Your task to perform on an android device: What's the news in Trinidad and Tobago? Image 0: 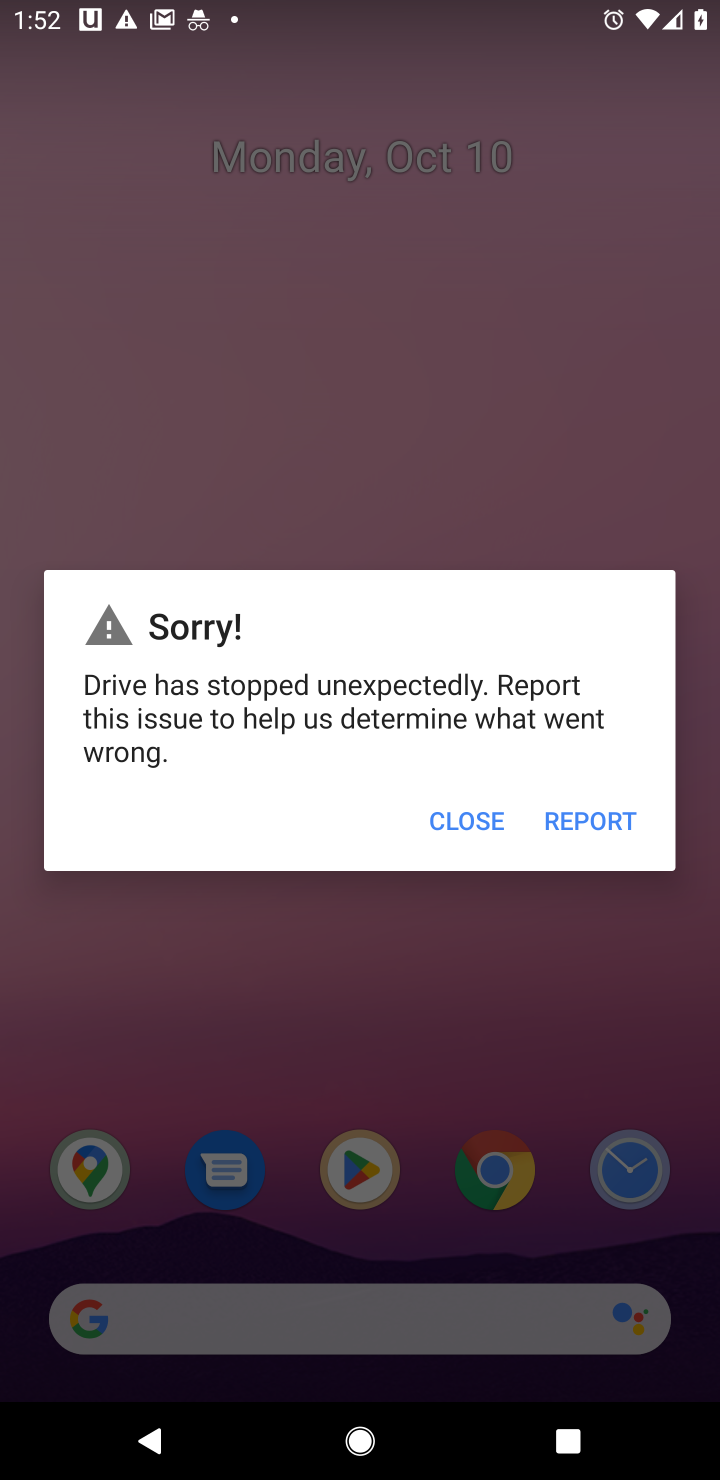
Step 0: press home button
Your task to perform on an android device: What's the news in Trinidad and Tobago? Image 1: 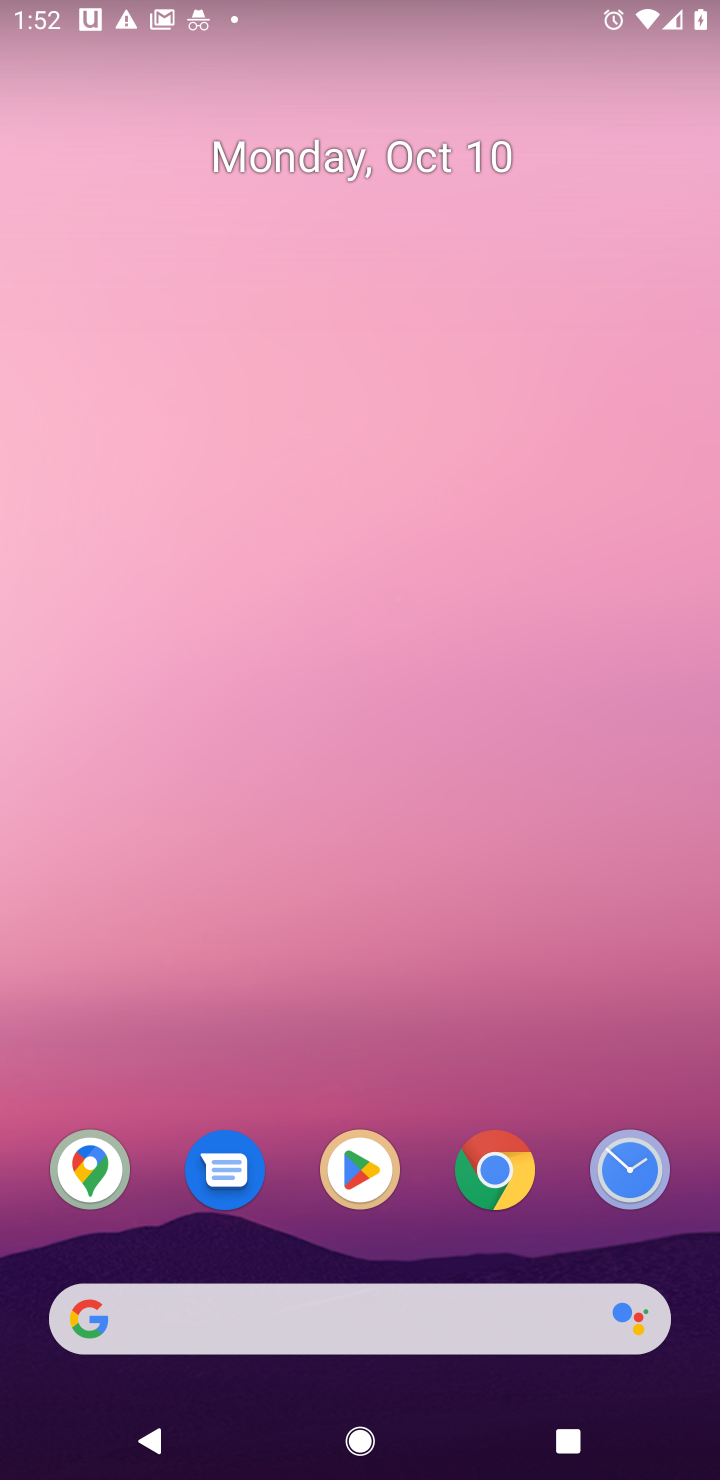
Step 1: click (486, 1150)
Your task to perform on an android device: What's the news in Trinidad and Tobago? Image 2: 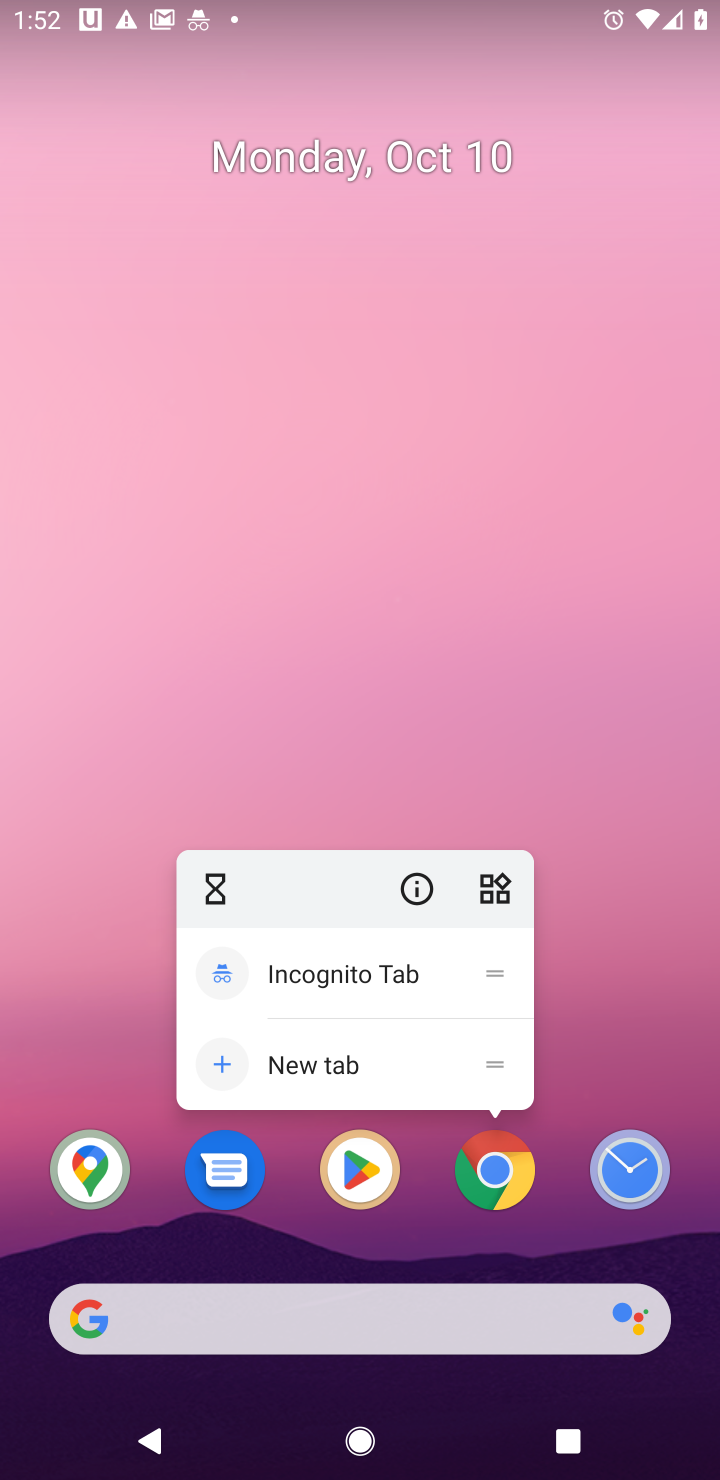
Step 2: click (486, 1150)
Your task to perform on an android device: What's the news in Trinidad and Tobago? Image 3: 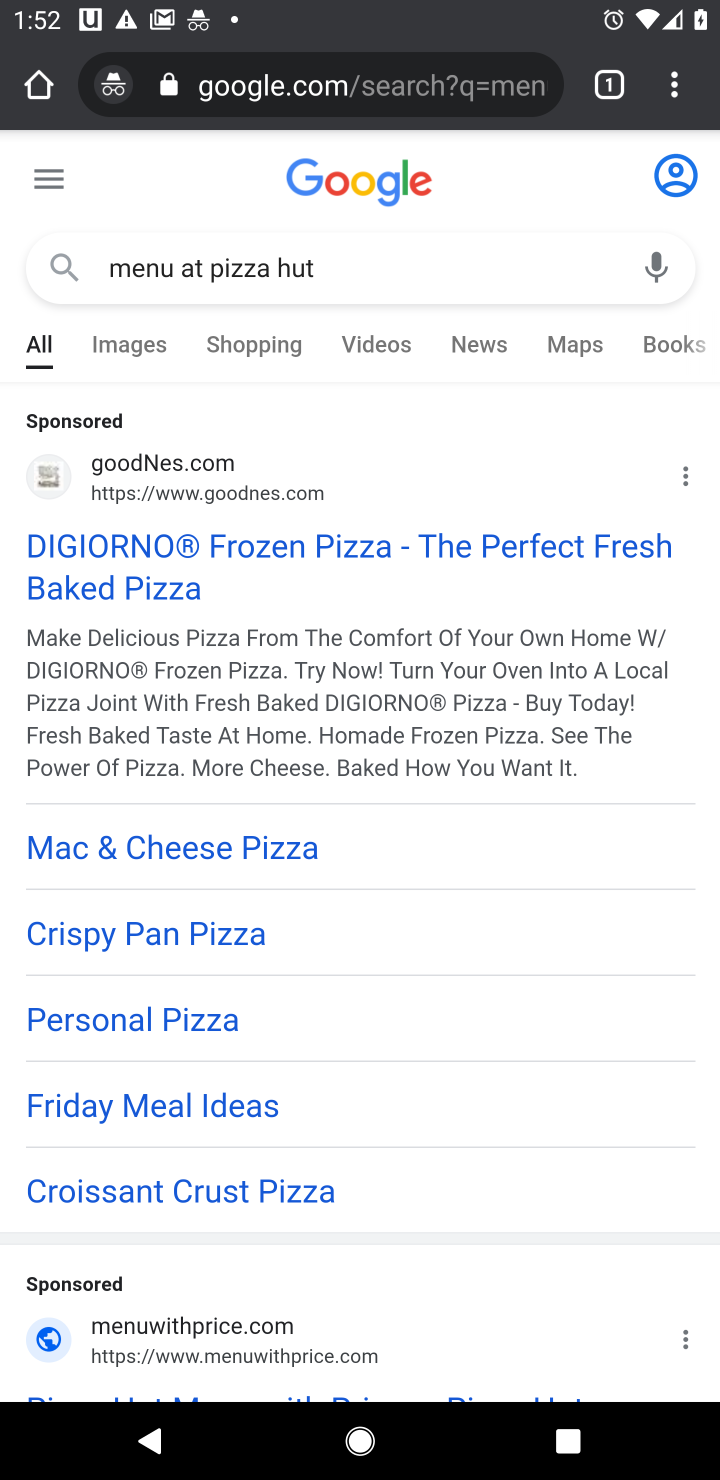
Step 3: click (353, 89)
Your task to perform on an android device: What's the news in Trinidad and Tobago? Image 4: 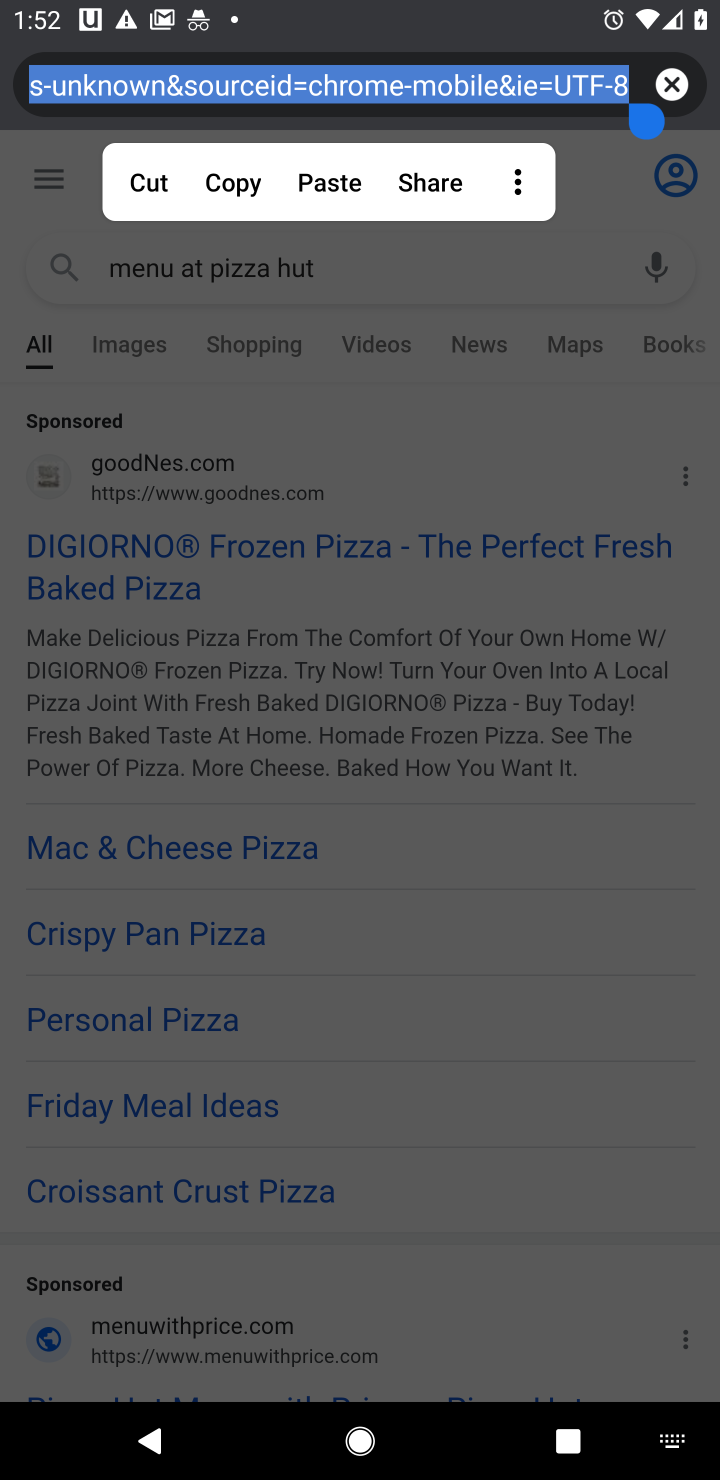
Step 4: click (673, 88)
Your task to perform on an android device: What's the news in Trinidad and Tobago? Image 5: 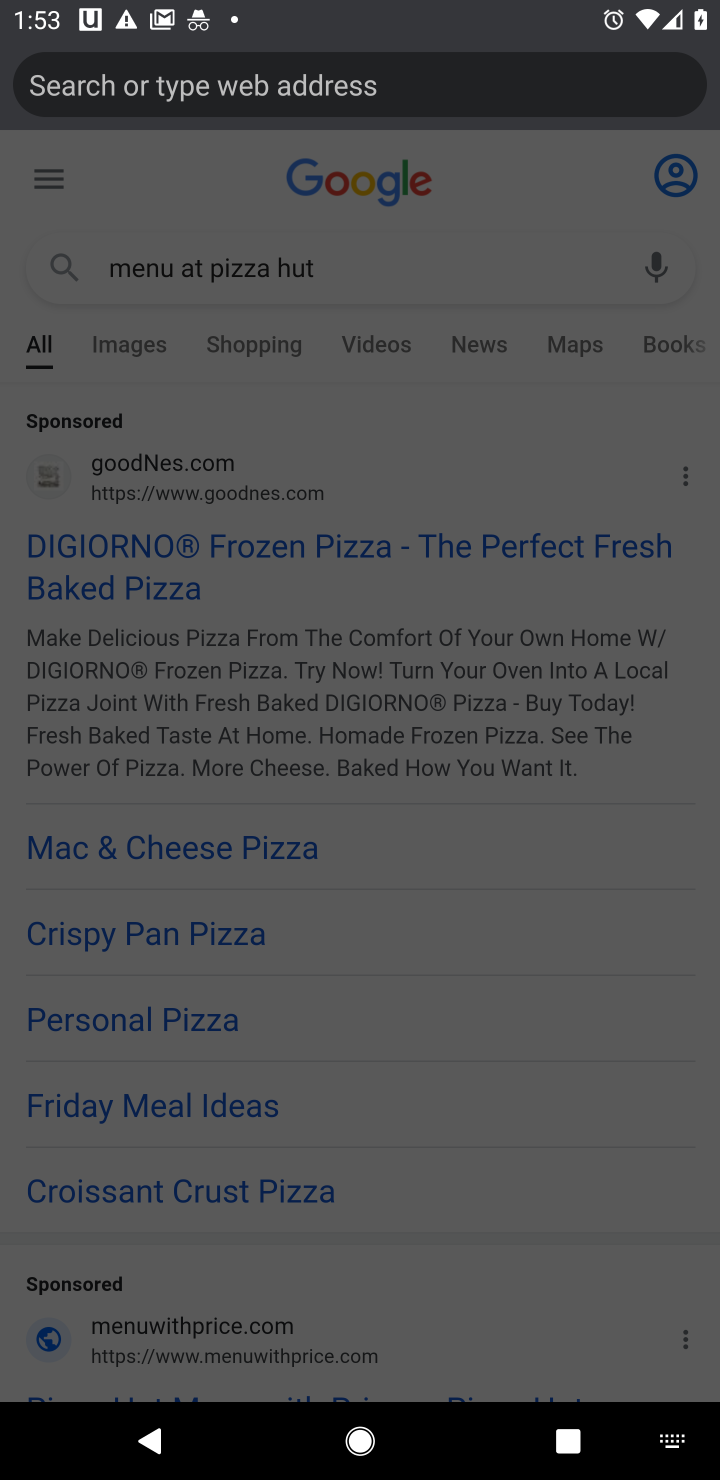
Step 5: type "news in trinidad and tobago"
Your task to perform on an android device: What's the news in Trinidad and Tobago? Image 6: 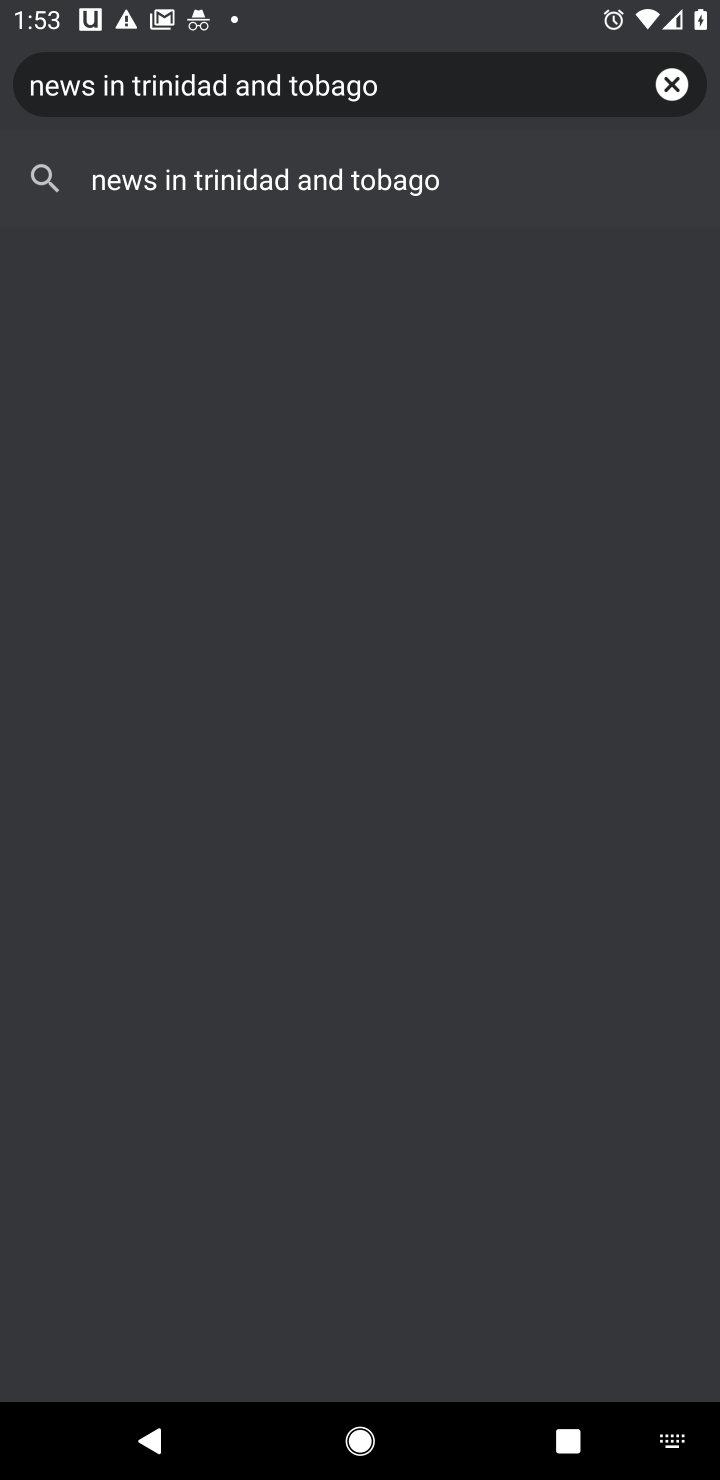
Step 6: click (396, 188)
Your task to perform on an android device: What's the news in Trinidad and Tobago? Image 7: 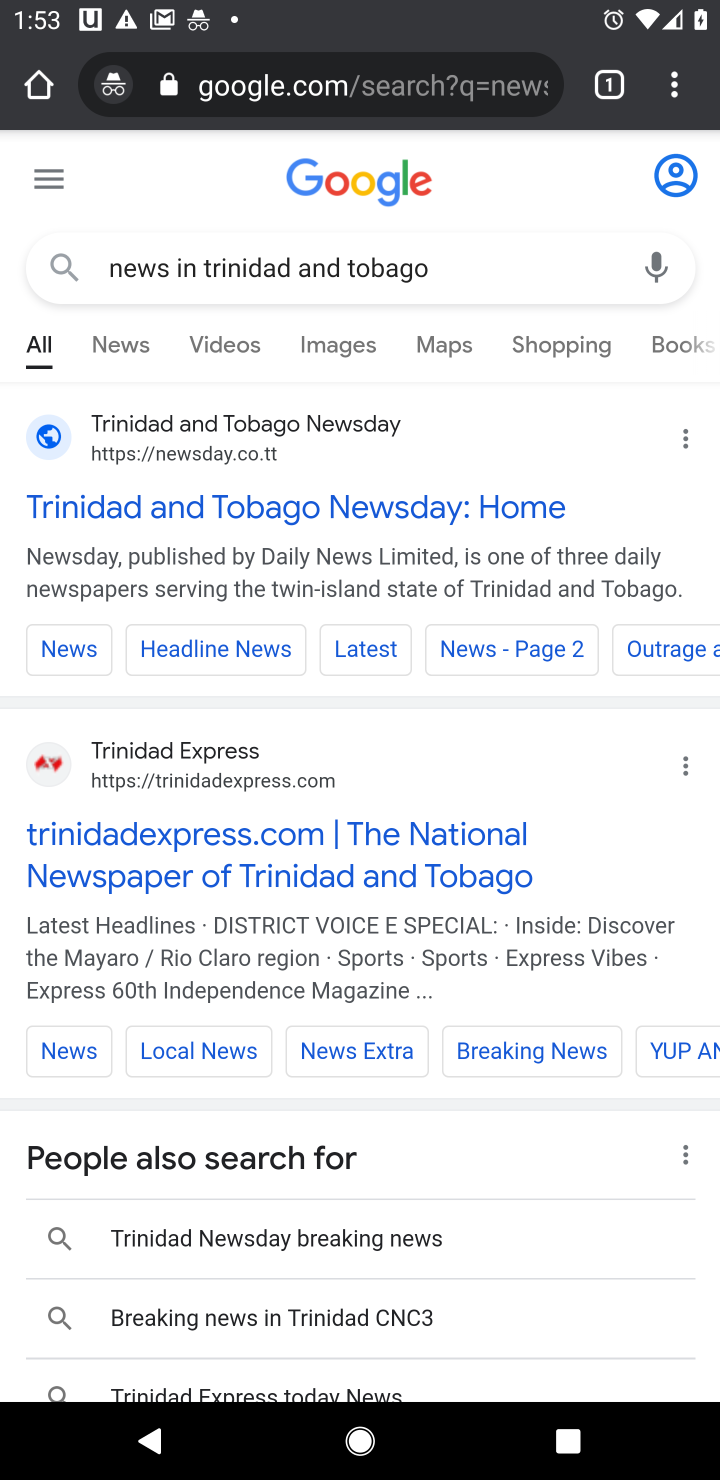
Step 7: click (333, 506)
Your task to perform on an android device: What's the news in Trinidad and Tobago? Image 8: 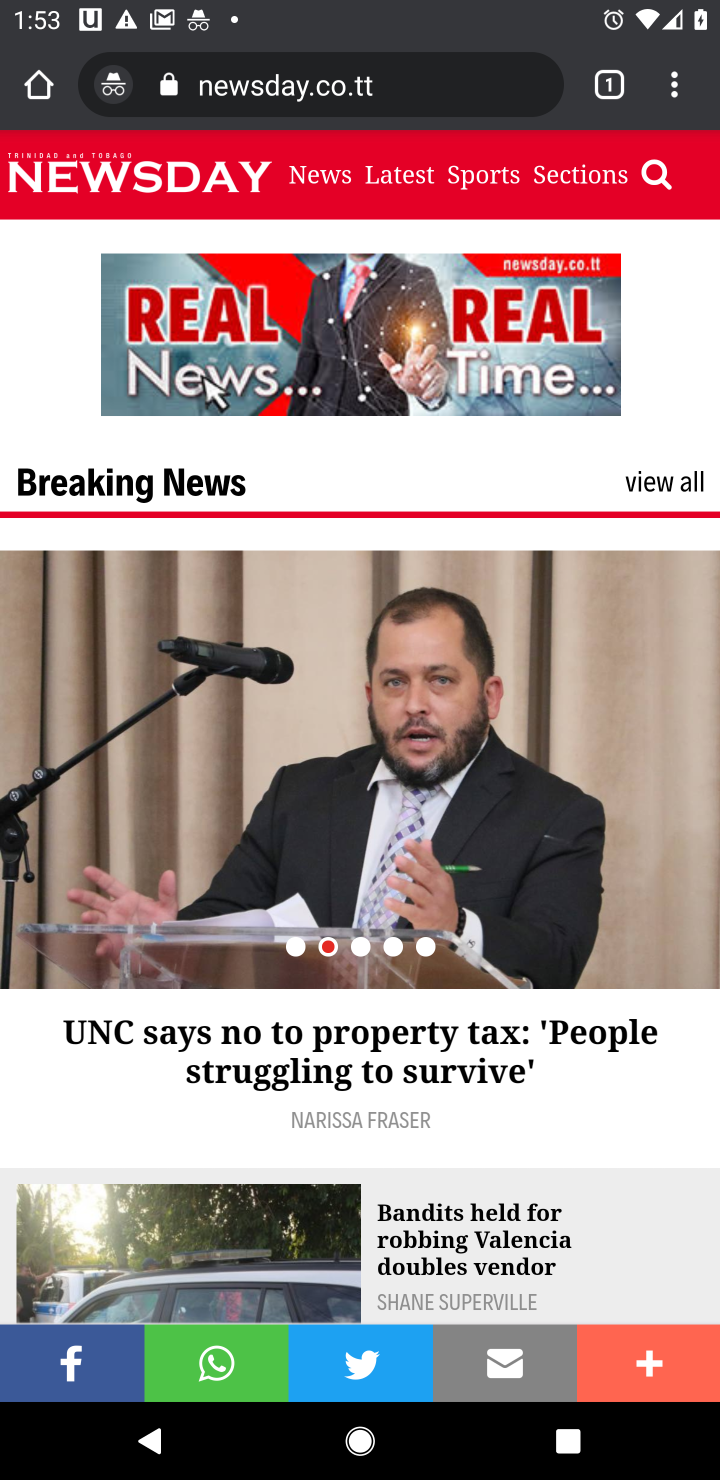
Step 8: task complete